Your task to perform on an android device: open a bookmark in the chrome app Image 0: 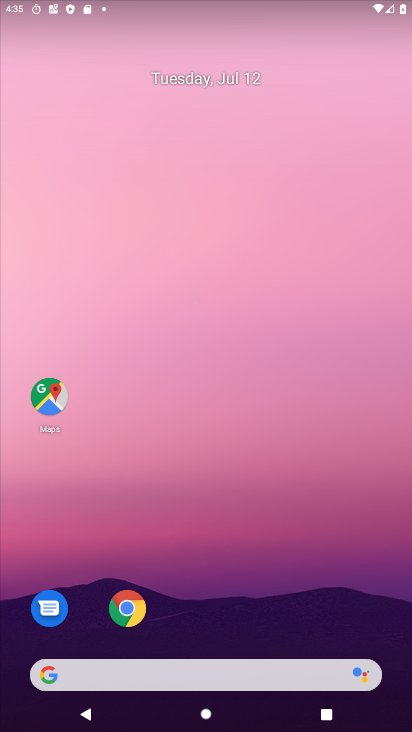
Step 0: drag from (215, 161) to (186, 74)
Your task to perform on an android device: open a bookmark in the chrome app Image 1: 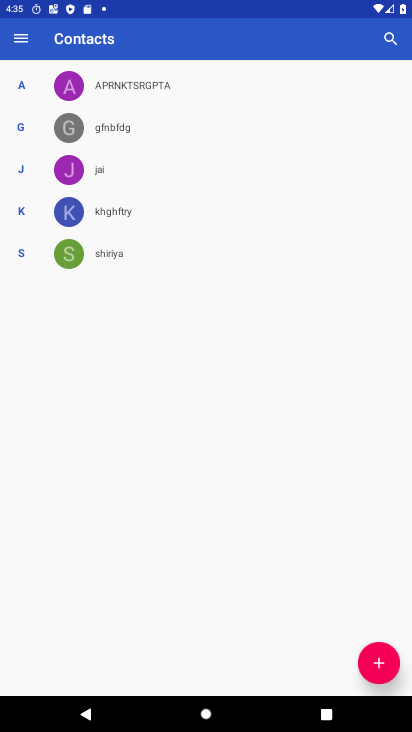
Step 1: press home button
Your task to perform on an android device: open a bookmark in the chrome app Image 2: 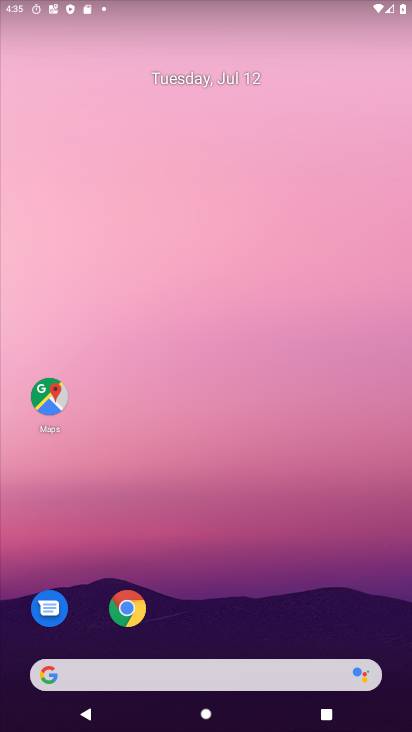
Step 2: drag from (216, 628) to (155, 48)
Your task to perform on an android device: open a bookmark in the chrome app Image 3: 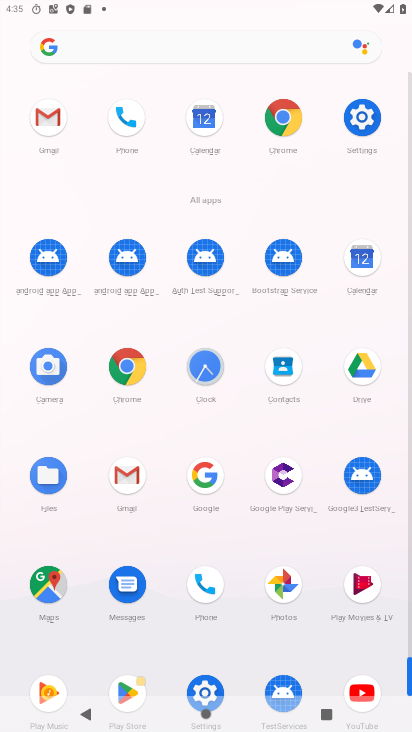
Step 3: click (282, 125)
Your task to perform on an android device: open a bookmark in the chrome app Image 4: 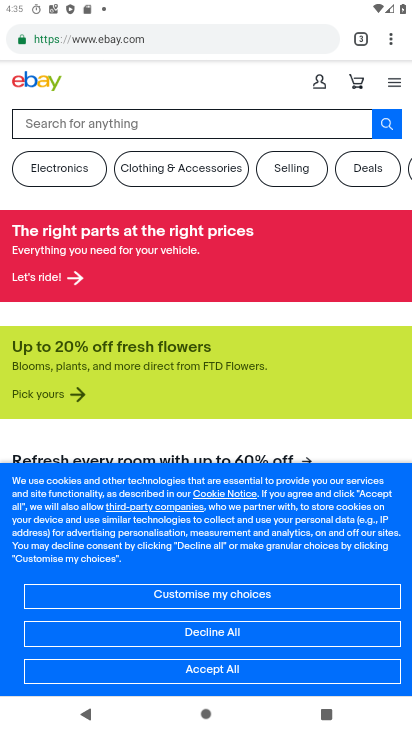
Step 4: click (388, 42)
Your task to perform on an android device: open a bookmark in the chrome app Image 5: 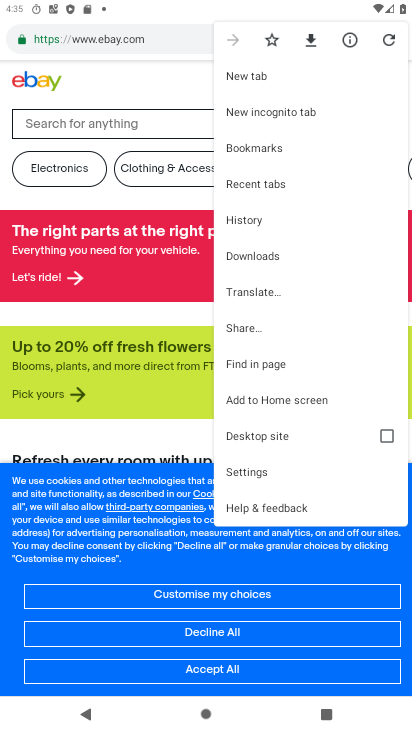
Step 5: click (326, 152)
Your task to perform on an android device: open a bookmark in the chrome app Image 6: 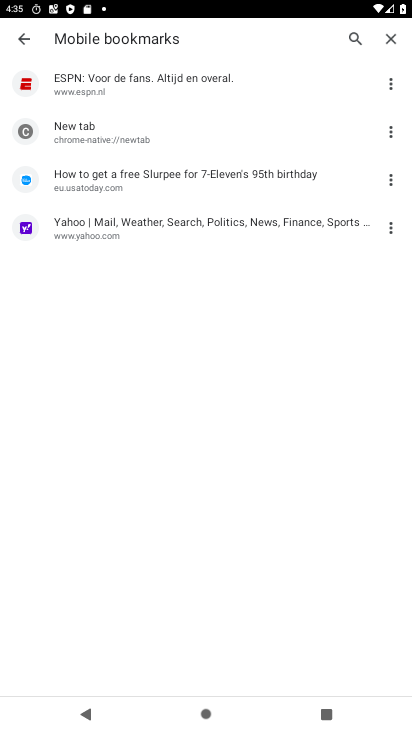
Step 6: click (162, 184)
Your task to perform on an android device: open a bookmark in the chrome app Image 7: 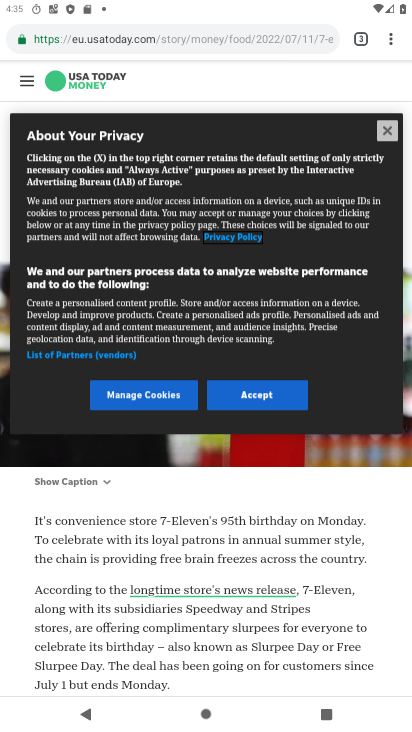
Step 7: task complete